Your task to perform on an android device: turn on priority inbox in the gmail app Image 0: 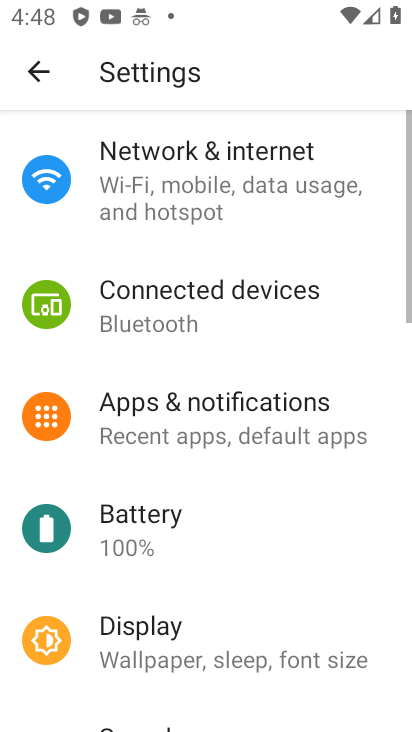
Step 0: press home button
Your task to perform on an android device: turn on priority inbox in the gmail app Image 1: 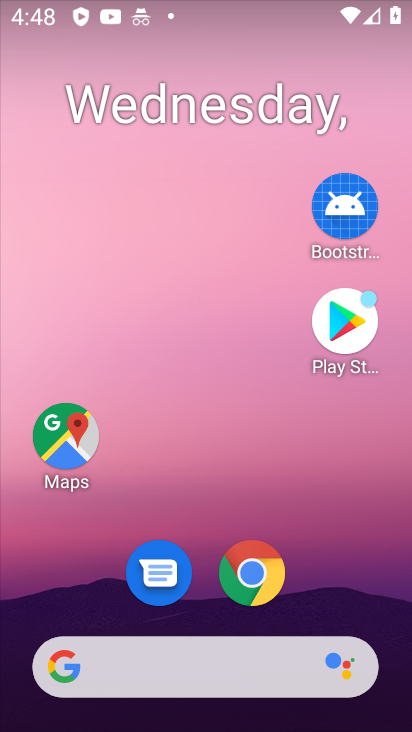
Step 1: drag from (302, 535) to (360, 88)
Your task to perform on an android device: turn on priority inbox in the gmail app Image 2: 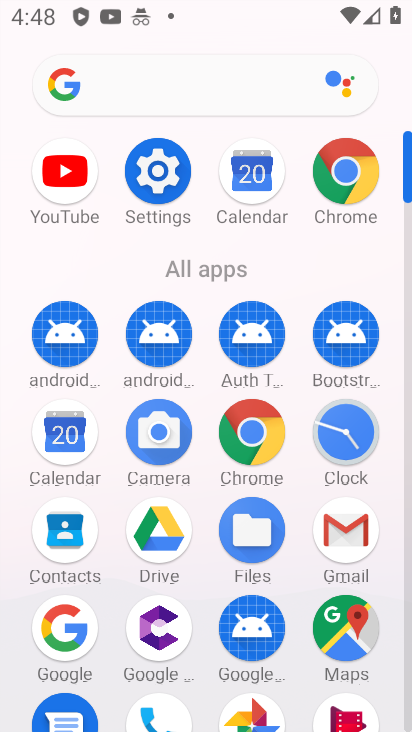
Step 2: click (347, 529)
Your task to perform on an android device: turn on priority inbox in the gmail app Image 3: 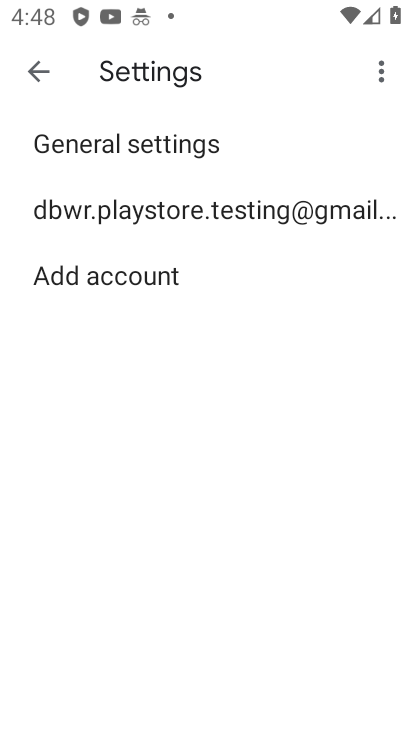
Step 3: click (228, 204)
Your task to perform on an android device: turn on priority inbox in the gmail app Image 4: 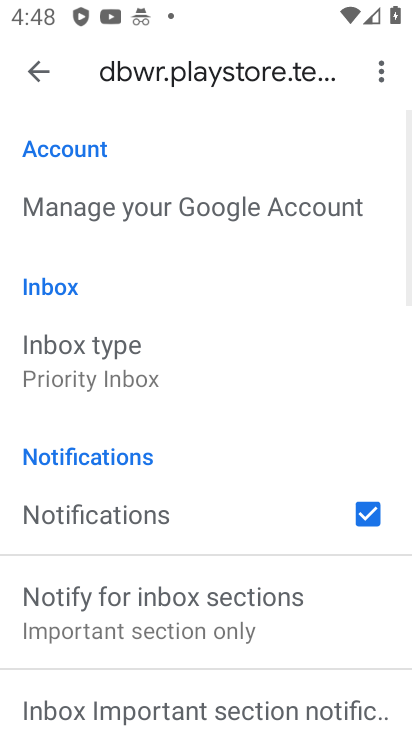
Step 4: click (84, 368)
Your task to perform on an android device: turn on priority inbox in the gmail app Image 5: 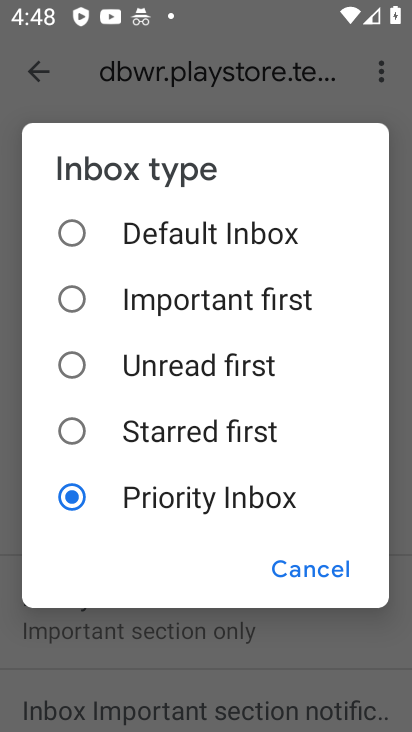
Step 5: click (174, 501)
Your task to perform on an android device: turn on priority inbox in the gmail app Image 6: 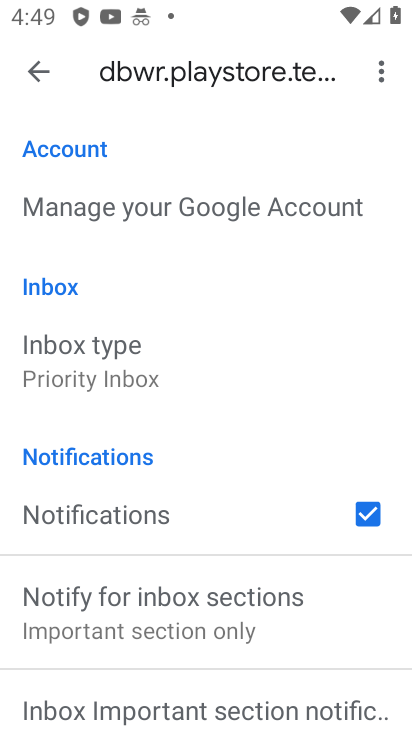
Step 6: task complete